Your task to perform on an android device: Open network settings Image 0: 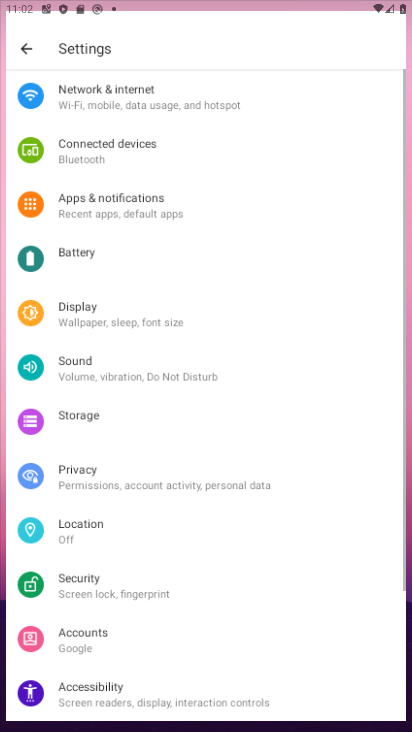
Step 0: press home button
Your task to perform on an android device: Open network settings Image 1: 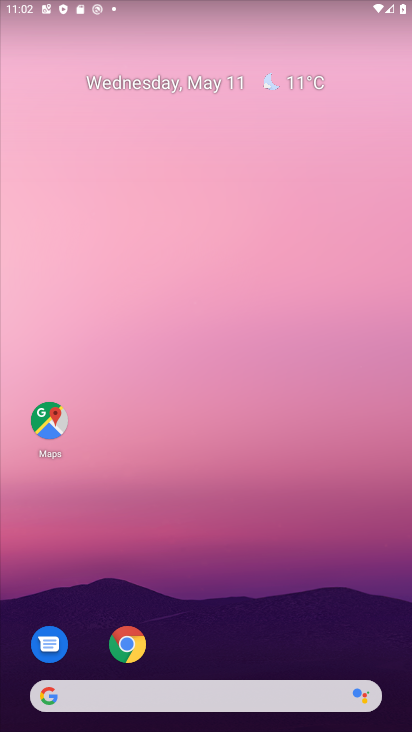
Step 1: drag from (207, 656) to (198, 124)
Your task to perform on an android device: Open network settings Image 2: 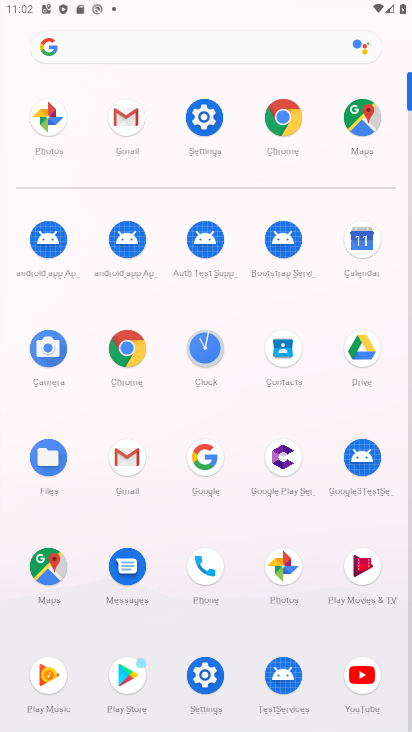
Step 2: click (201, 112)
Your task to perform on an android device: Open network settings Image 3: 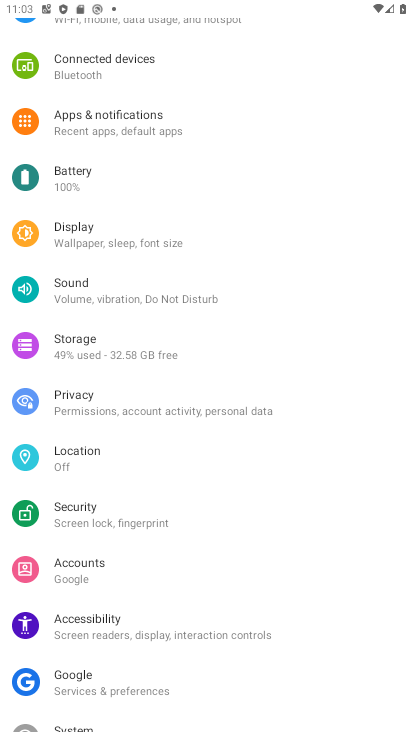
Step 3: drag from (140, 94) to (169, 694)
Your task to perform on an android device: Open network settings Image 4: 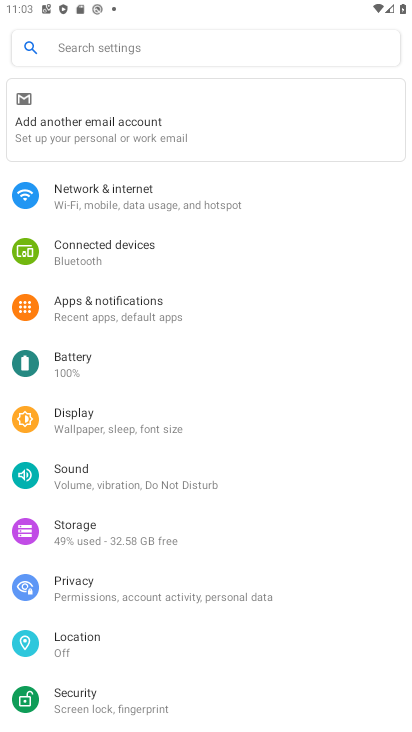
Step 4: click (170, 189)
Your task to perform on an android device: Open network settings Image 5: 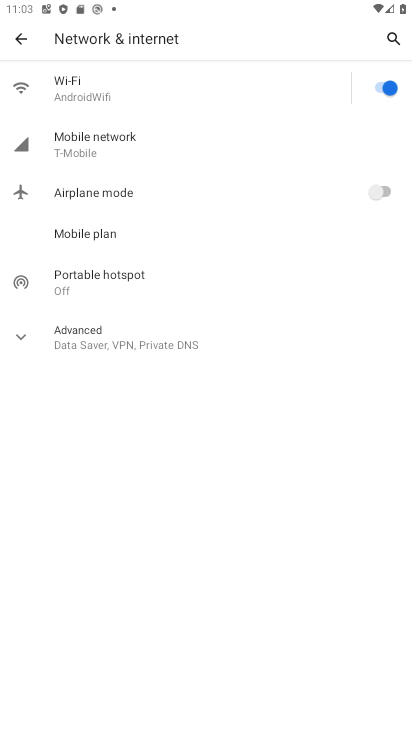
Step 5: click (17, 329)
Your task to perform on an android device: Open network settings Image 6: 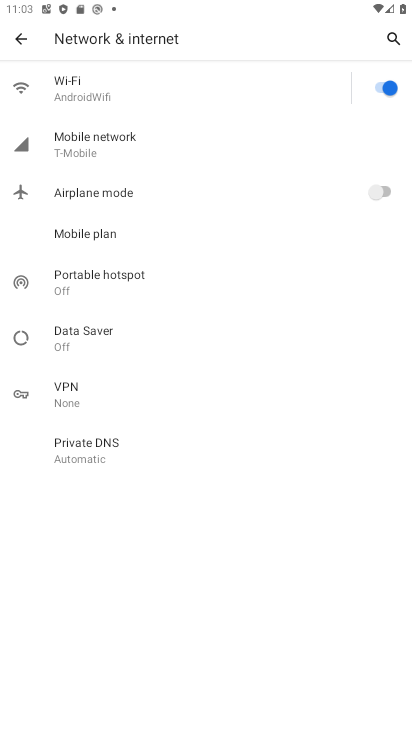
Step 6: task complete